Your task to perform on an android device: Go to sound settings Image 0: 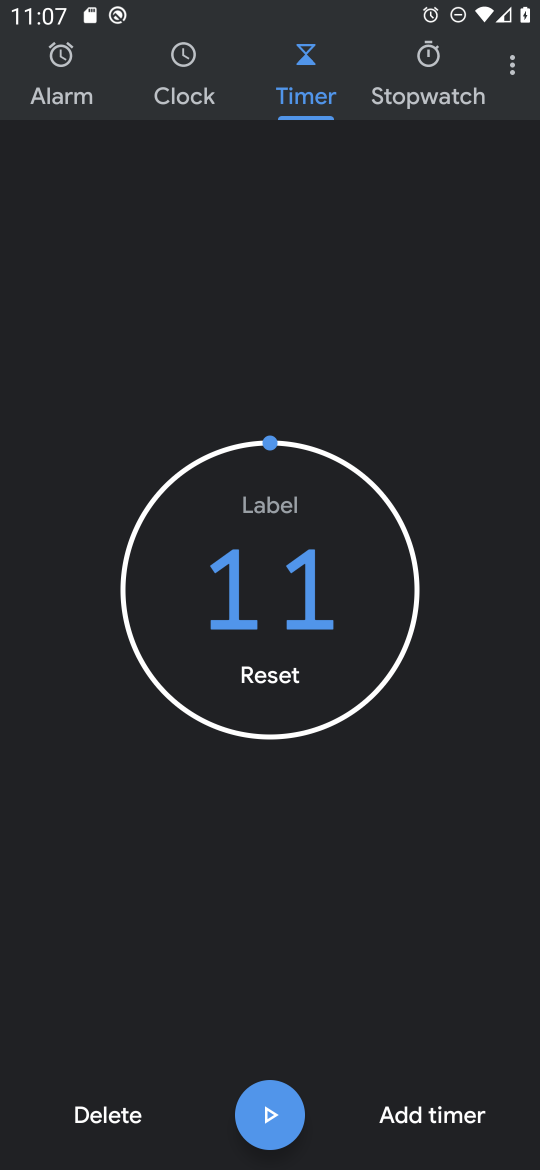
Step 0: press home button
Your task to perform on an android device: Go to sound settings Image 1: 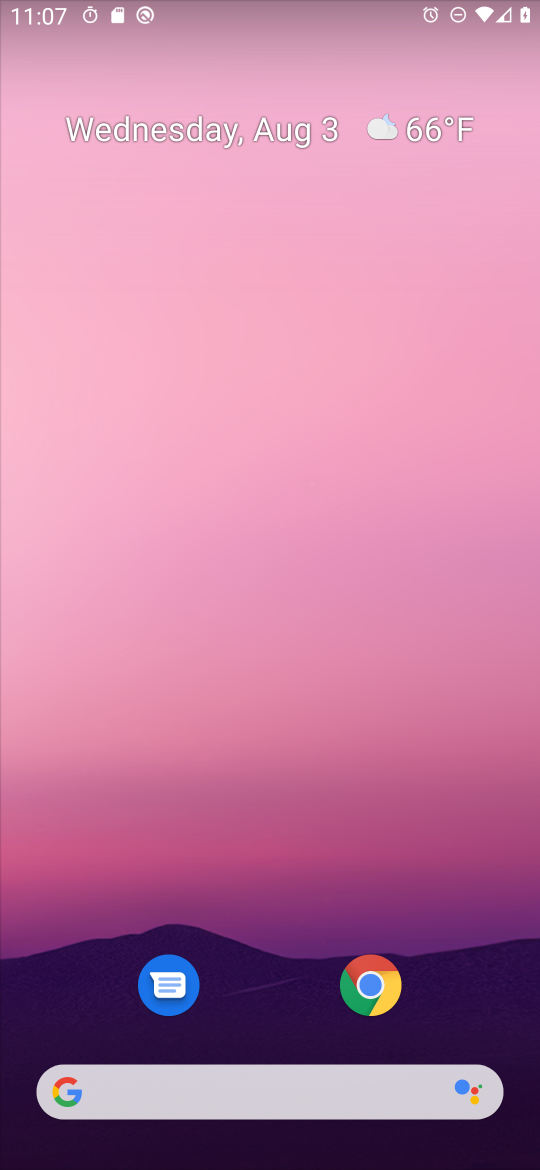
Step 1: drag from (269, 1035) to (277, 273)
Your task to perform on an android device: Go to sound settings Image 2: 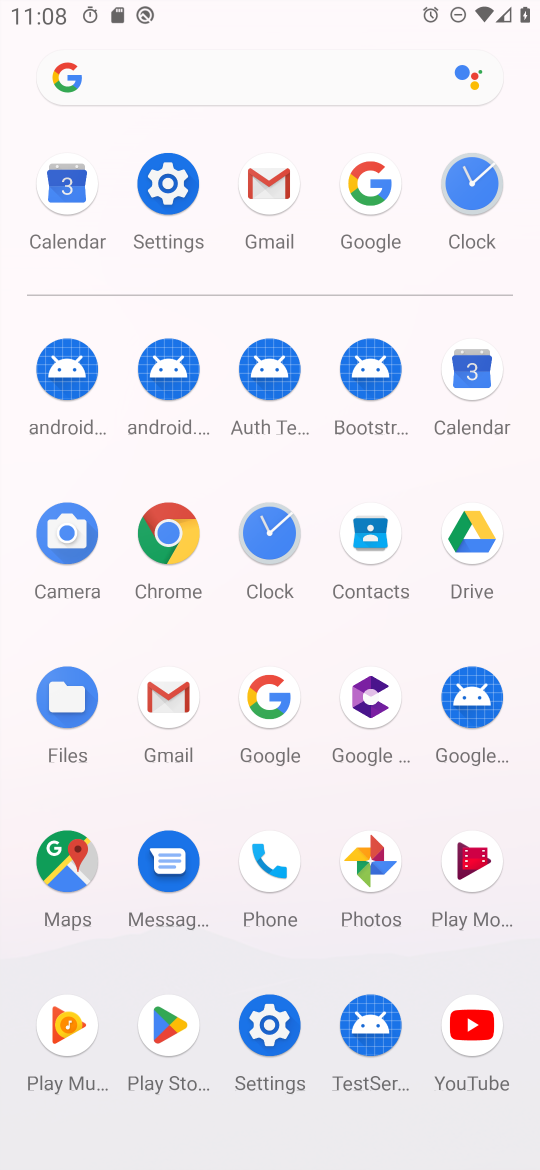
Step 2: click (203, 181)
Your task to perform on an android device: Go to sound settings Image 3: 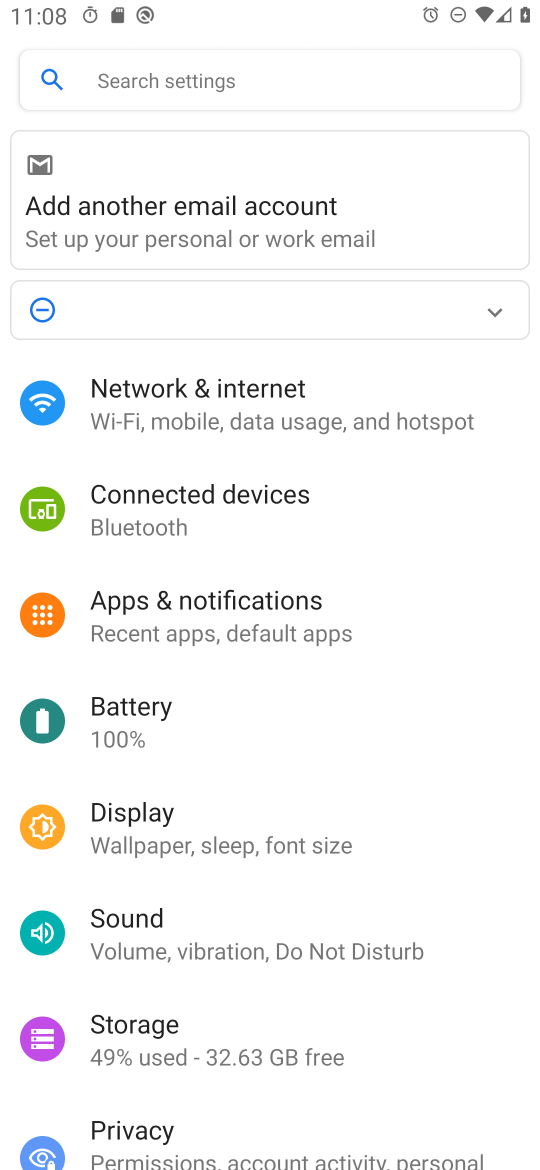
Step 3: click (262, 958)
Your task to perform on an android device: Go to sound settings Image 4: 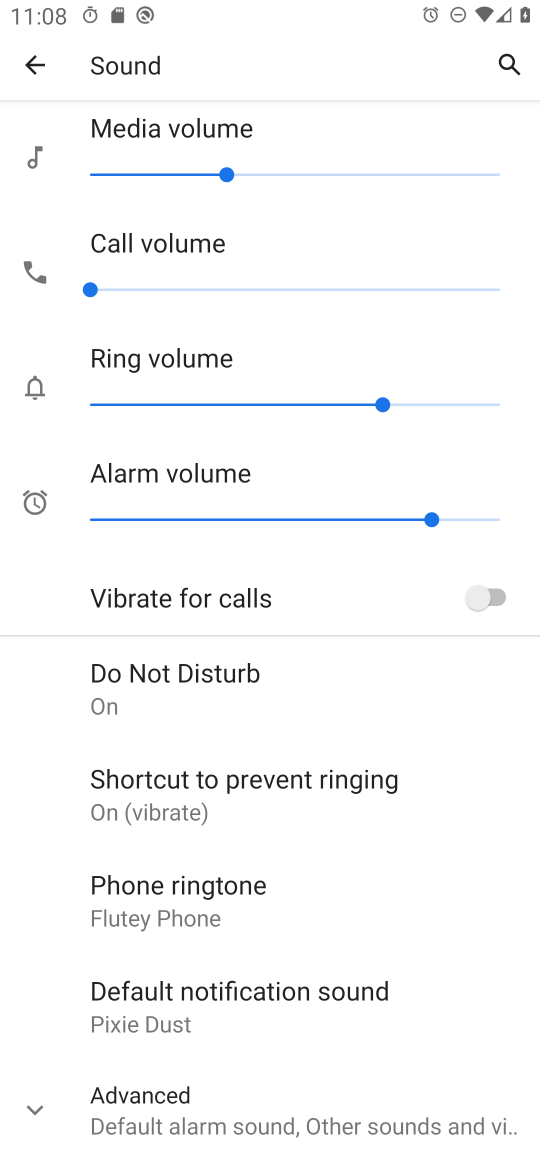
Step 4: task complete